Your task to perform on an android device: set the timer Image 0: 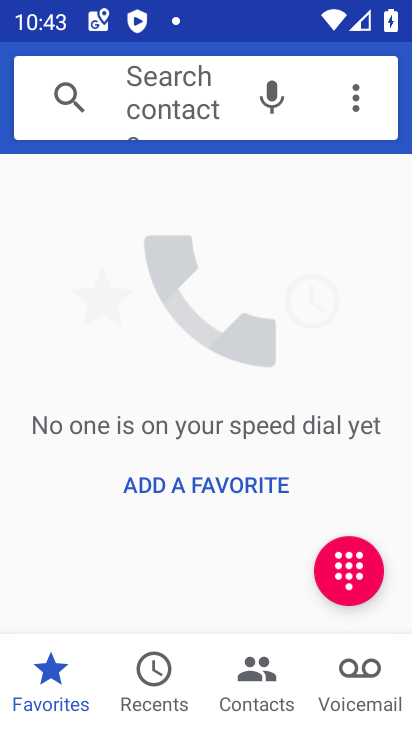
Step 0: press home button
Your task to perform on an android device: set the timer Image 1: 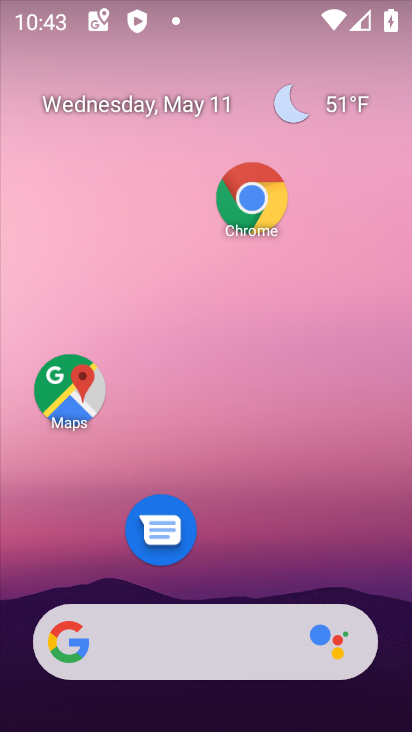
Step 1: drag from (279, 606) to (268, 198)
Your task to perform on an android device: set the timer Image 2: 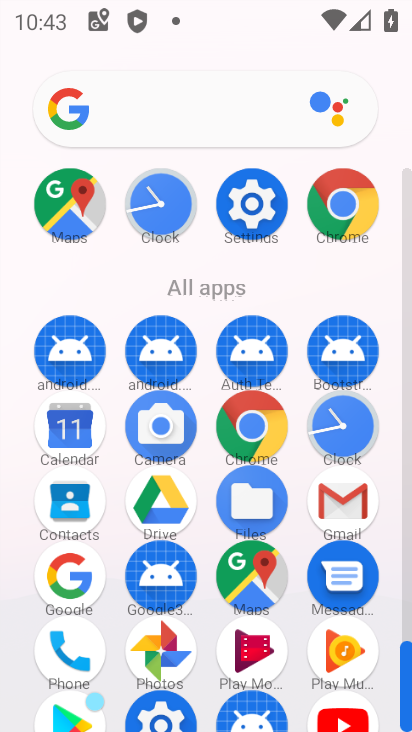
Step 2: click (158, 221)
Your task to perform on an android device: set the timer Image 3: 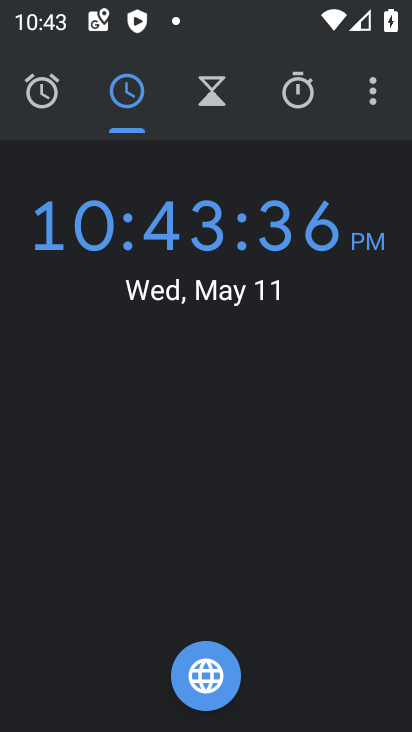
Step 3: click (224, 99)
Your task to perform on an android device: set the timer Image 4: 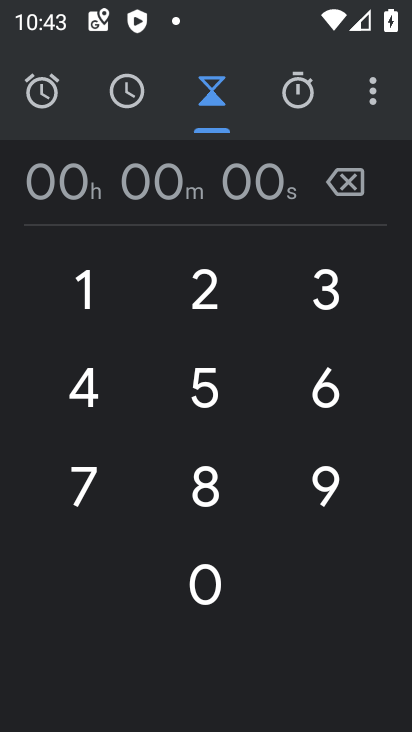
Step 4: click (218, 298)
Your task to perform on an android device: set the timer Image 5: 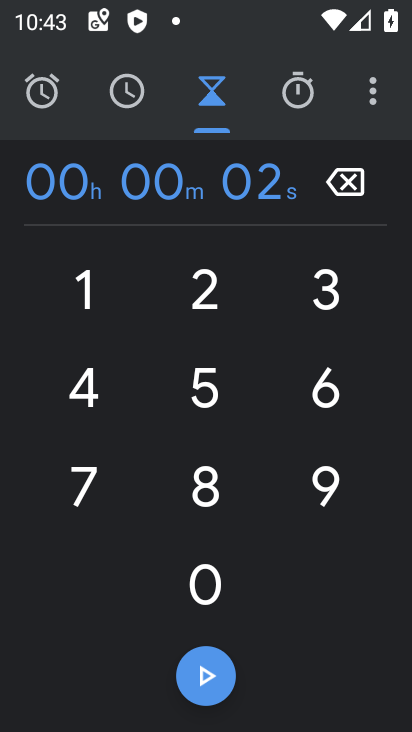
Step 5: click (221, 589)
Your task to perform on an android device: set the timer Image 6: 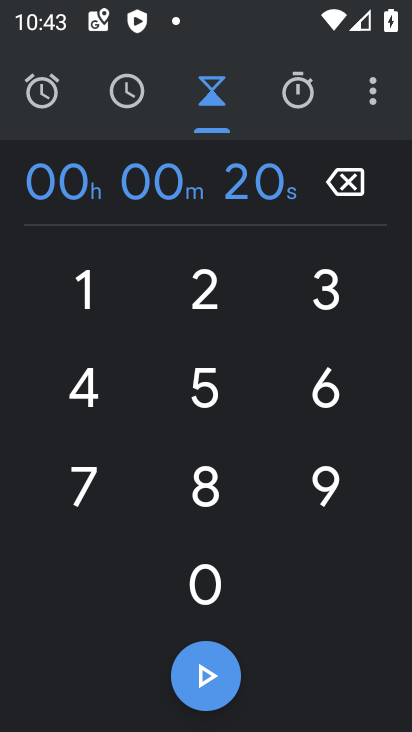
Step 6: click (204, 291)
Your task to perform on an android device: set the timer Image 7: 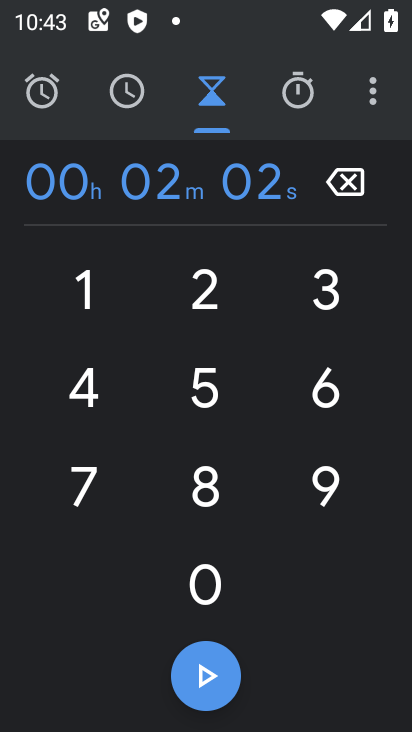
Step 7: click (208, 586)
Your task to perform on an android device: set the timer Image 8: 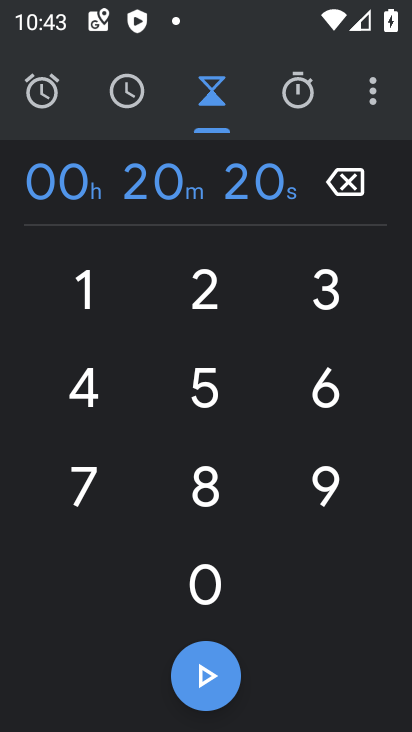
Step 8: click (194, 689)
Your task to perform on an android device: set the timer Image 9: 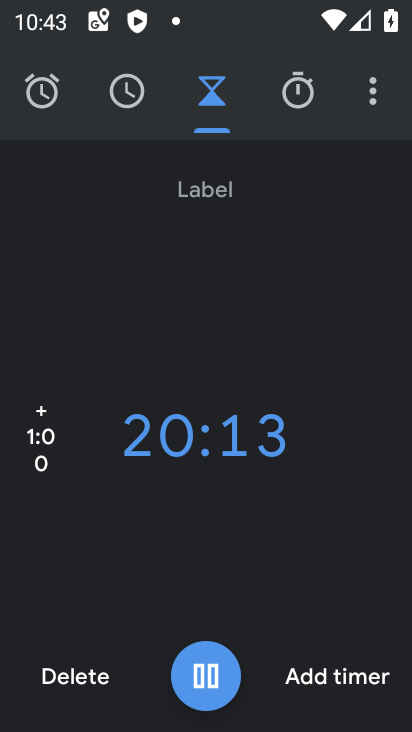
Step 9: click (352, 692)
Your task to perform on an android device: set the timer Image 10: 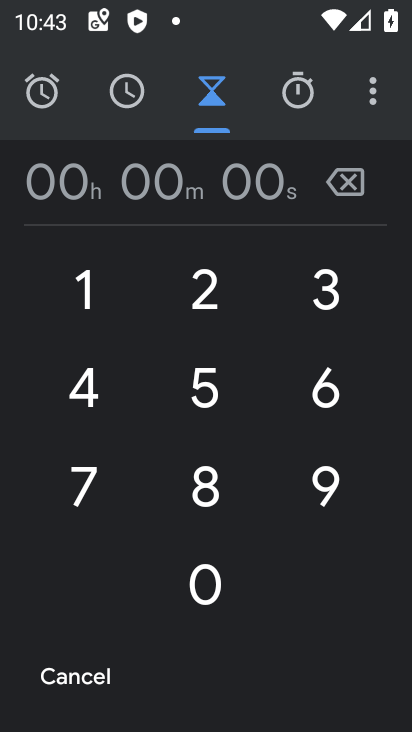
Step 10: task complete